Your task to perform on an android device: Open Google Chrome and click the shortcut for Amazon.com Image 0: 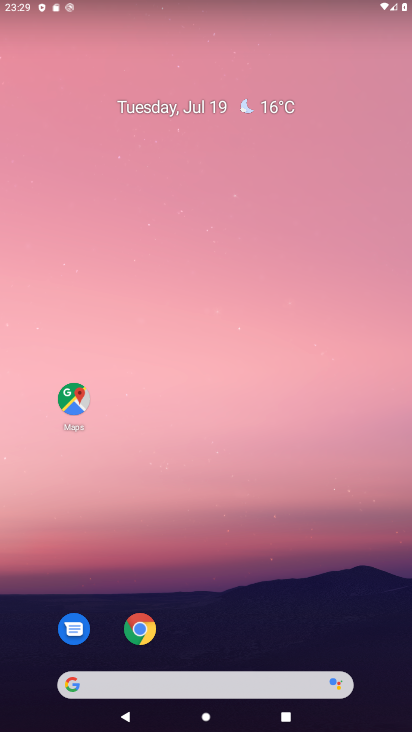
Step 0: drag from (393, 718) to (314, 205)
Your task to perform on an android device: Open Google Chrome and click the shortcut for Amazon.com Image 1: 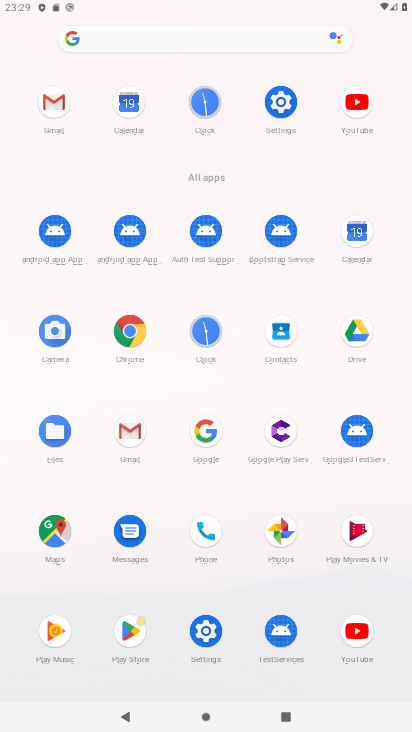
Step 1: click (127, 324)
Your task to perform on an android device: Open Google Chrome and click the shortcut for Amazon.com Image 2: 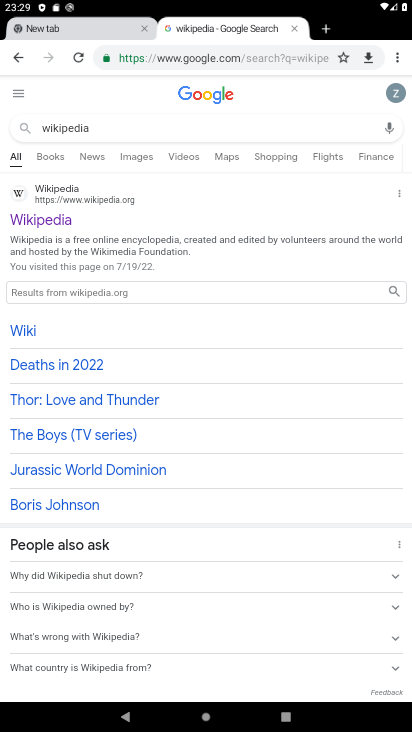
Step 2: click (306, 44)
Your task to perform on an android device: Open Google Chrome and click the shortcut for Amazon.com Image 3: 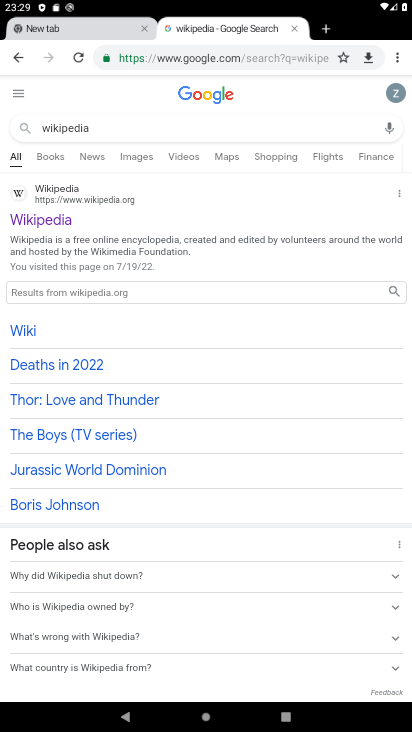
Step 3: click (306, 53)
Your task to perform on an android device: Open Google Chrome and click the shortcut for Amazon.com Image 4: 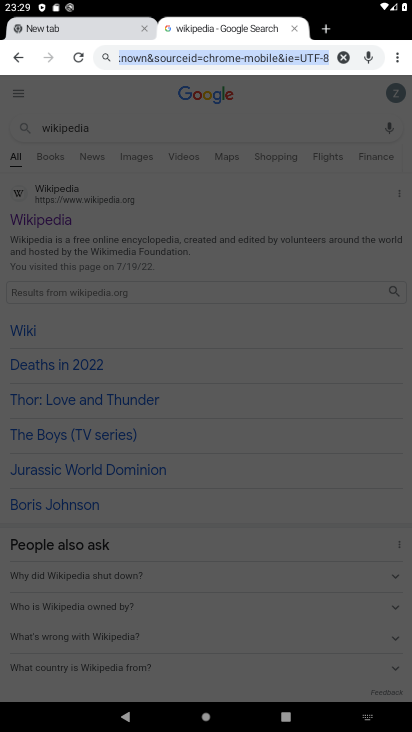
Step 4: click (342, 56)
Your task to perform on an android device: Open Google Chrome and click the shortcut for Amazon.com Image 5: 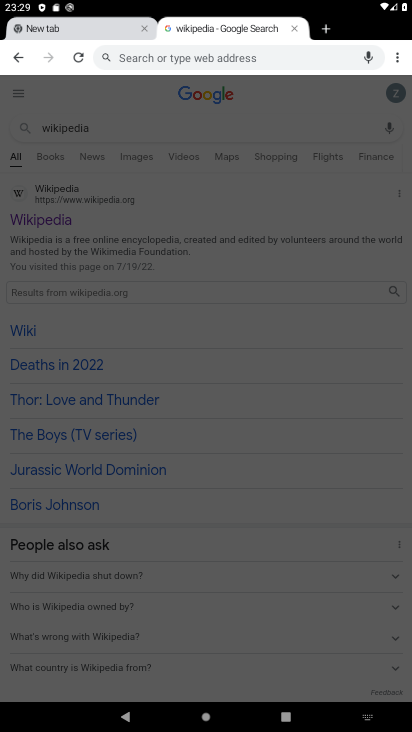
Step 5: type "Amazon.com"
Your task to perform on an android device: Open Google Chrome and click the shortcut for Amazon.com Image 6: 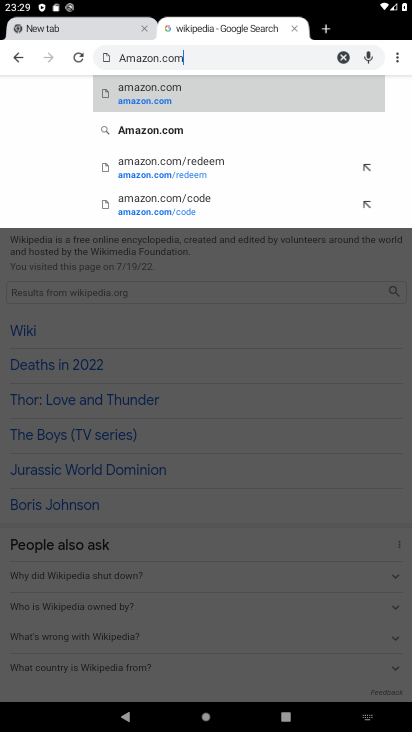
Step 6: click (140, 127)
Your task to perform on an android device: Open Google Chrome and click the shortcut for Amazon.com Image 7: 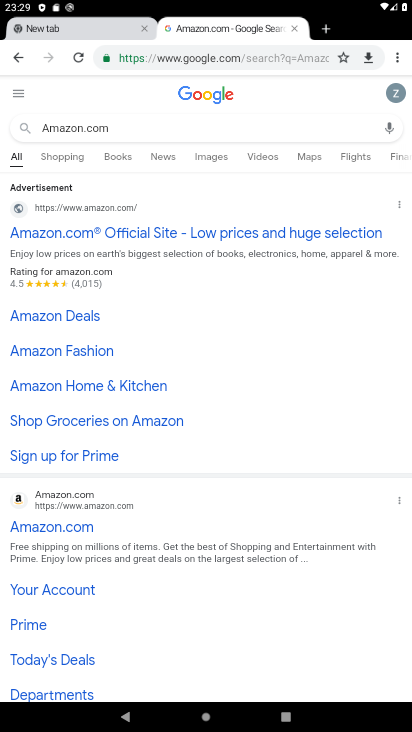
Step 7: task complete